Your task to perform on an android device: Search for pizza restaurants on Maps Image 0: 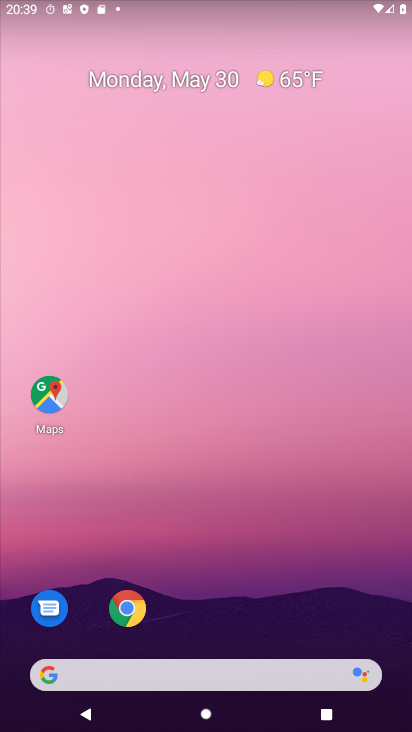
Step 0: click (28, 392)
Your task to perform on an android device: Search for pizza restaurants on Maps Image 1: 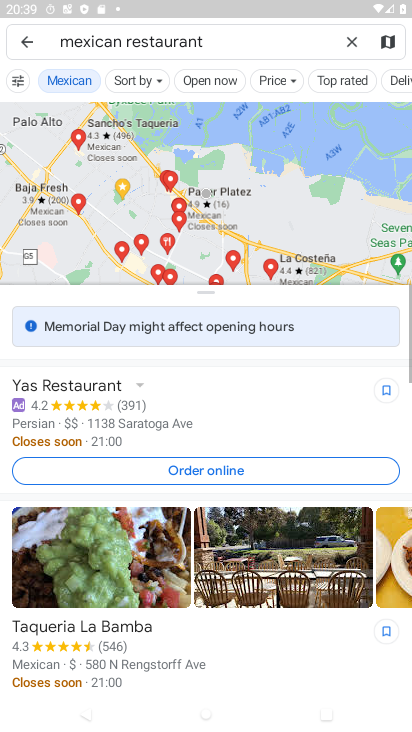
Step 1: click (345, 39)
Your task to perform on an android device: Search for pizza restaurants on Maps Image 2: 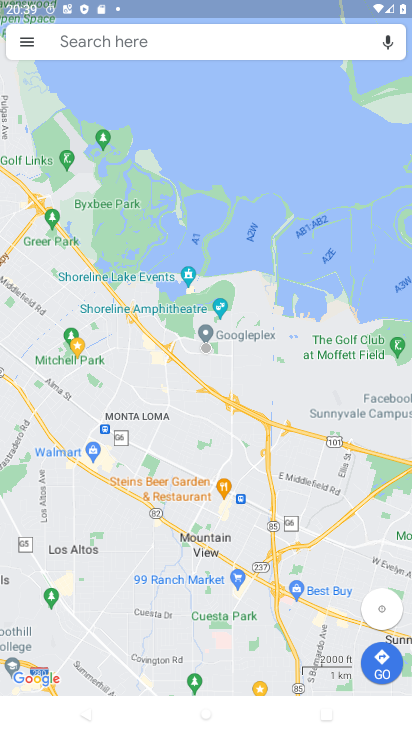
Step 2: click (229, 49)
Your task to perform on an android device: Search for pizza restaurants on Maps Image 3: 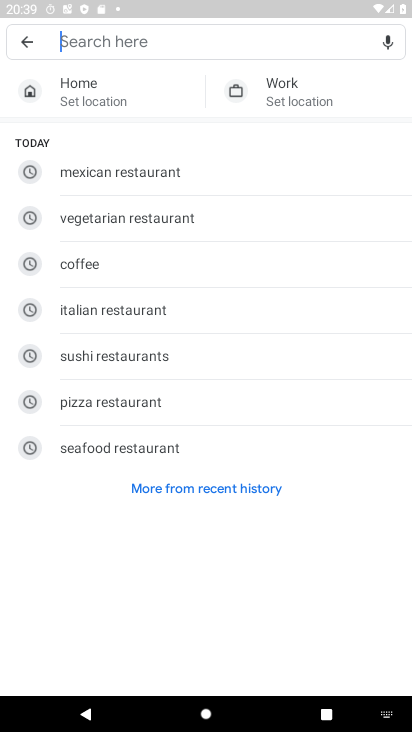
Step 3: click (138, 408)
Your task to perform on an android device: Search for pizza restaurants on Maps Image 4: 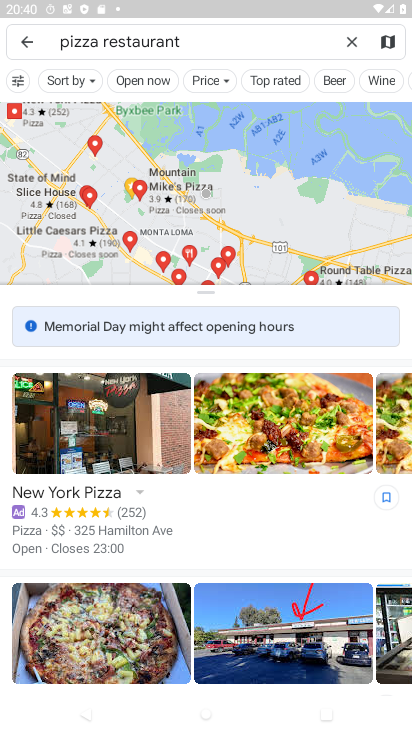
Step 4: task complete